Your task to perform on an android device: What's the weather going to be tomorrow? Image 0: 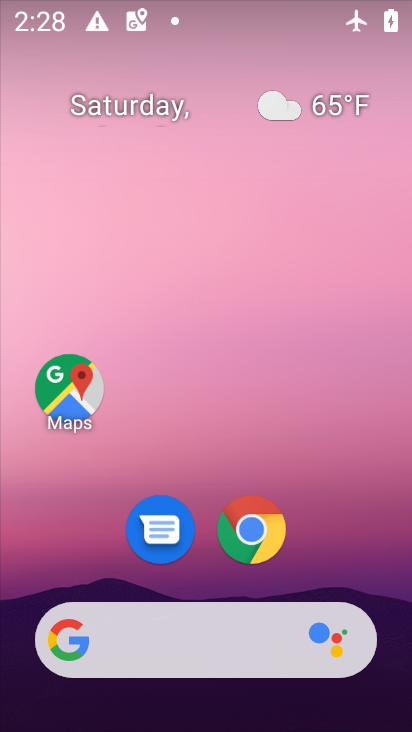
Step 0: drag from (387, 568) to (260, 26)
Your task to perform on an android device: What's the weather going to be tomorrow? Image 1: 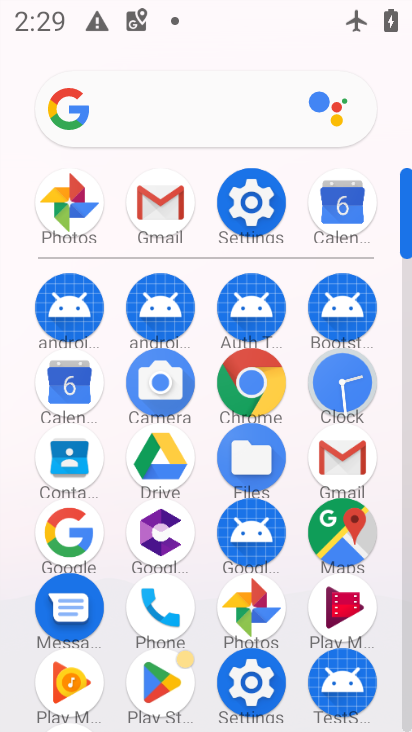
Step 1: click (340, 211)
Your task to perform on an android device: What's the weather going to be tomorrow? Image 2: 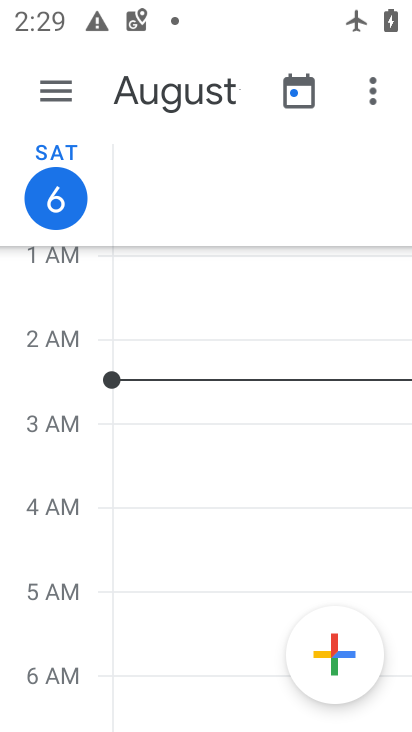
Step 2: press back button
Your task to perform on an android device: What's the weather going to be tomorrow? Image 3: 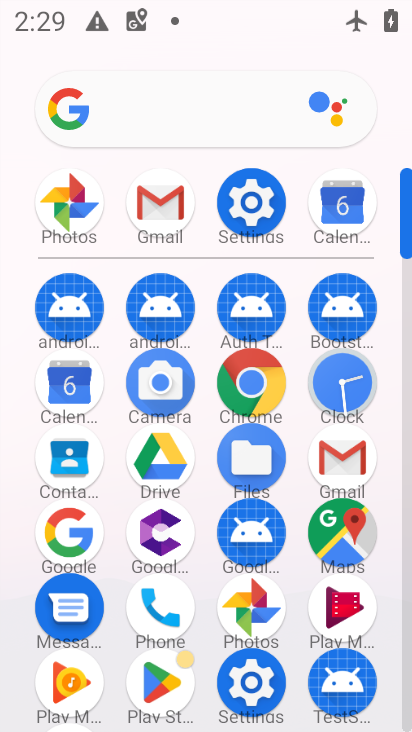
Step 3: click (265, 384)
Your task to perform on an android device: What's the weather going to be tomorrow? Image 4: 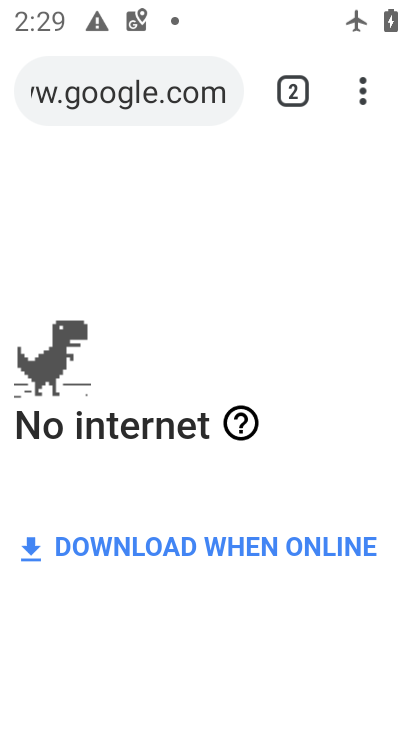
Step 4: click (118, 88)
Your task to perform on an android device: What's the weather going to be tomorrow? Image 5: 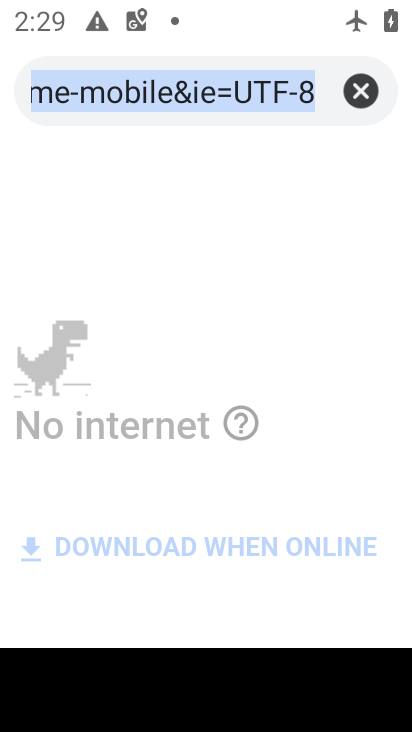
Step 5: type "What's the weather going to be tomorrow?"
Your task to perform on an android device: What's the weather going to be tomorrow? Image 6: 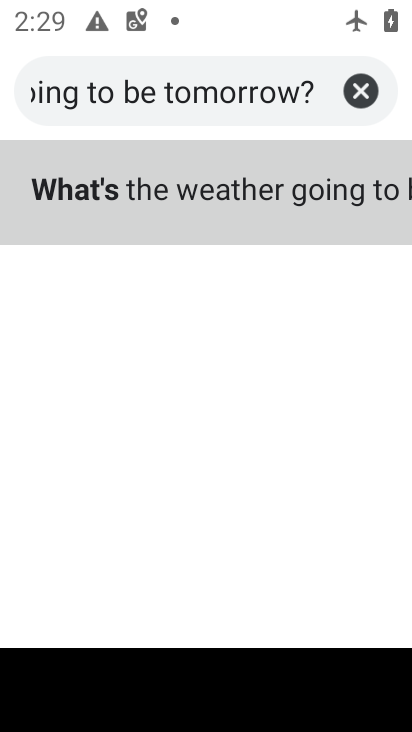
Step 6: click (254, 178)
Your task to perform on an android device: What's the weather going to be tomorrow? Image 7: 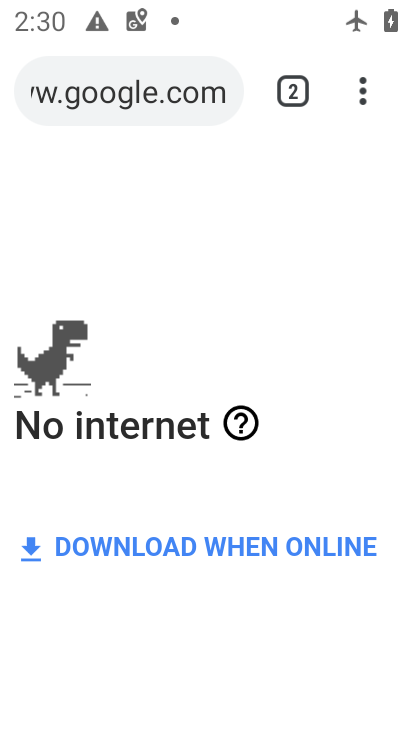
Step 7: task complete